Your task to perform on an android device: turn off improve location accuracy Image 0: 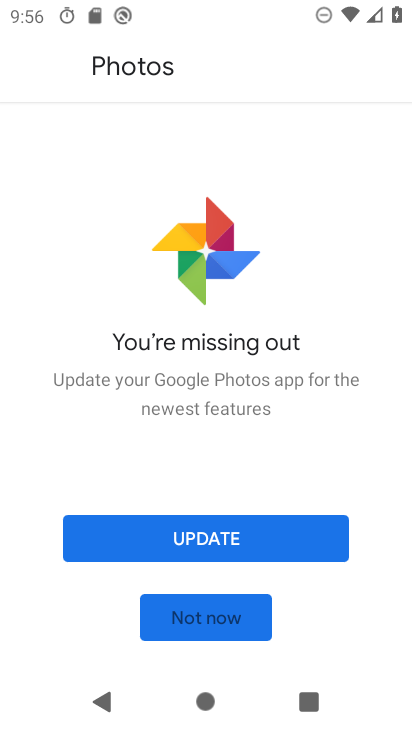
Step 0: press home button
Your task to perform on an android device: turn off improve location accuracy Image 1: 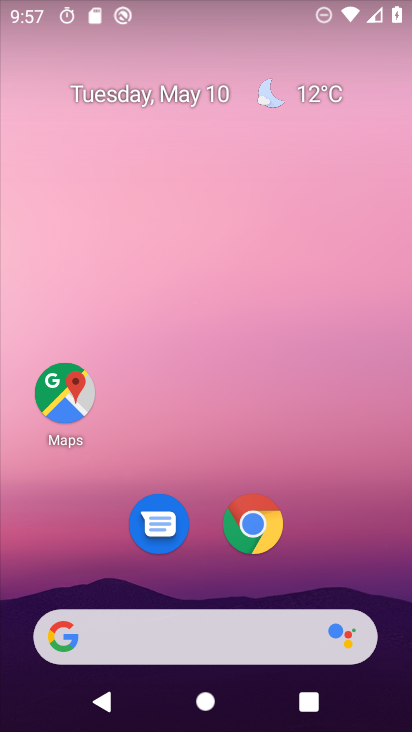
Step 1: drag from (315, 541) to (250, 112)
Your task to perform on an android device: turn off improve location accuracy Image 2: 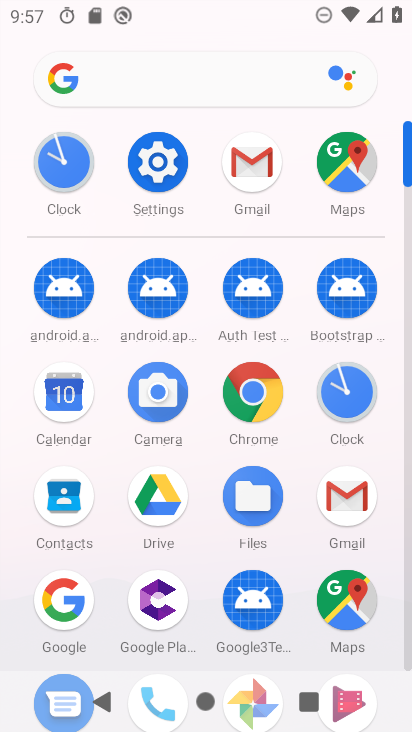
Step 2: click (168, 155)
Your task to perform on an android device: turn off improve location accuracy Image 3: 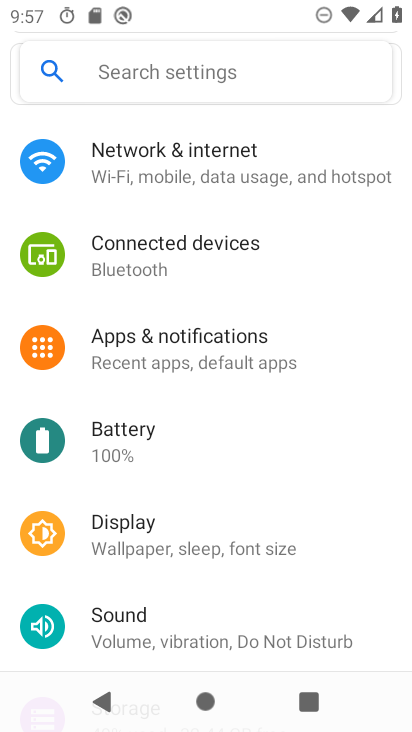
Step 3: drag from (225, 517) to (237, 201)
Your task to perform on an android device: turn off improve location accuracy Image 4: 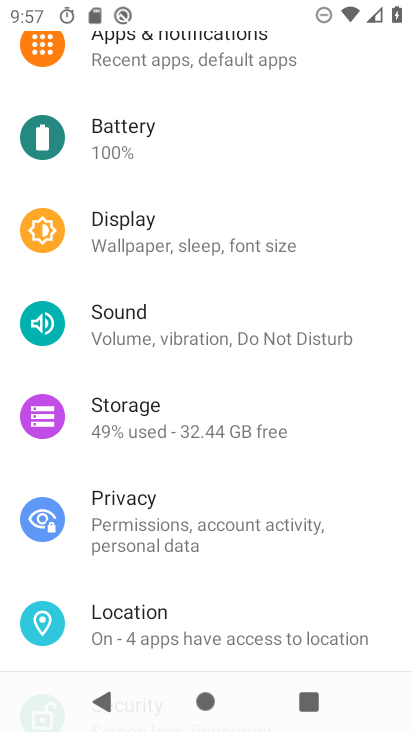
Step 4: click (243, 622)
Your task to perform on an android device: turn off improve location accuracy Image 5: 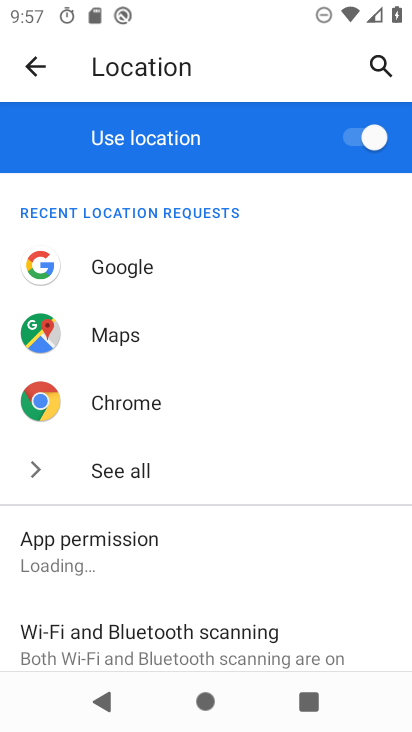
Step 5: drag from (254, 584) to (246, 204)
Your task to perform on an android device: turn off improve location accuracy Image 6: 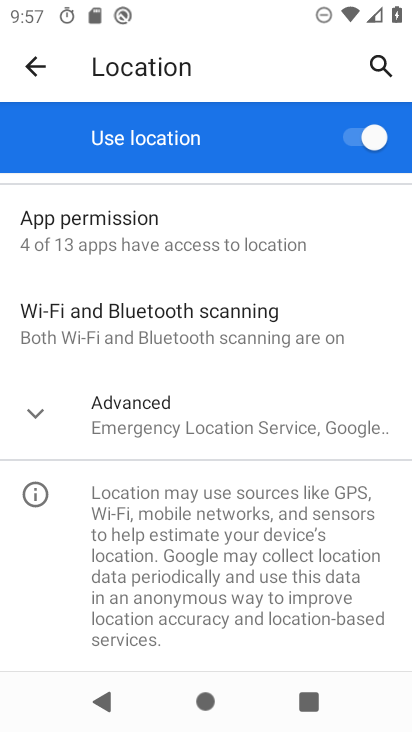
Step 6: click (38, 406)
Your task to perform on an android device: turn off improve location accuracy Image 7: 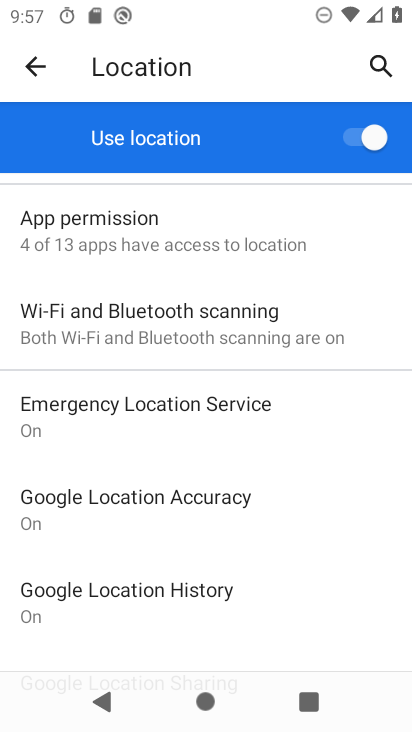
Step 7: click (161, 508)
Your task to perform on an android device: turn off improve location accuracy Image 8: 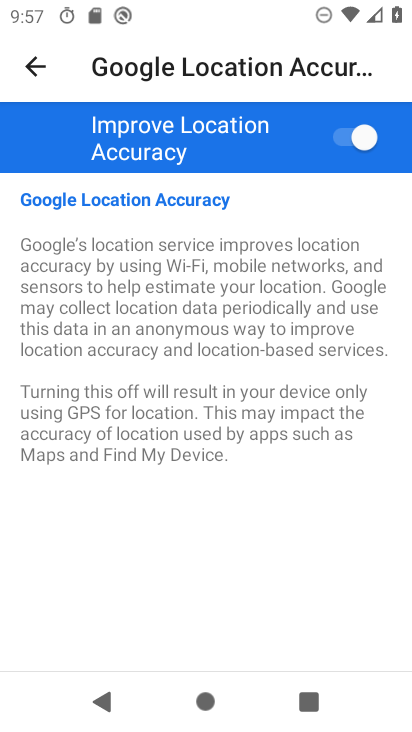
Step 8: click (346, 145)
Your task to perform on an android device: turn off improve location accuracy Image 9: 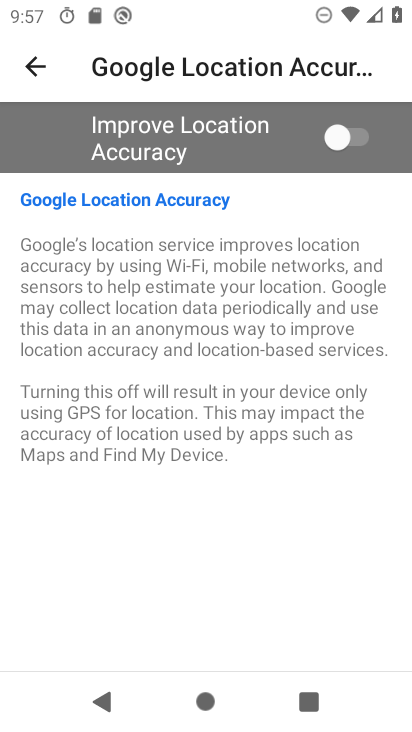
Step 9: task complete